Your task to perform on an android device: open app "McDonald's" Image 0: 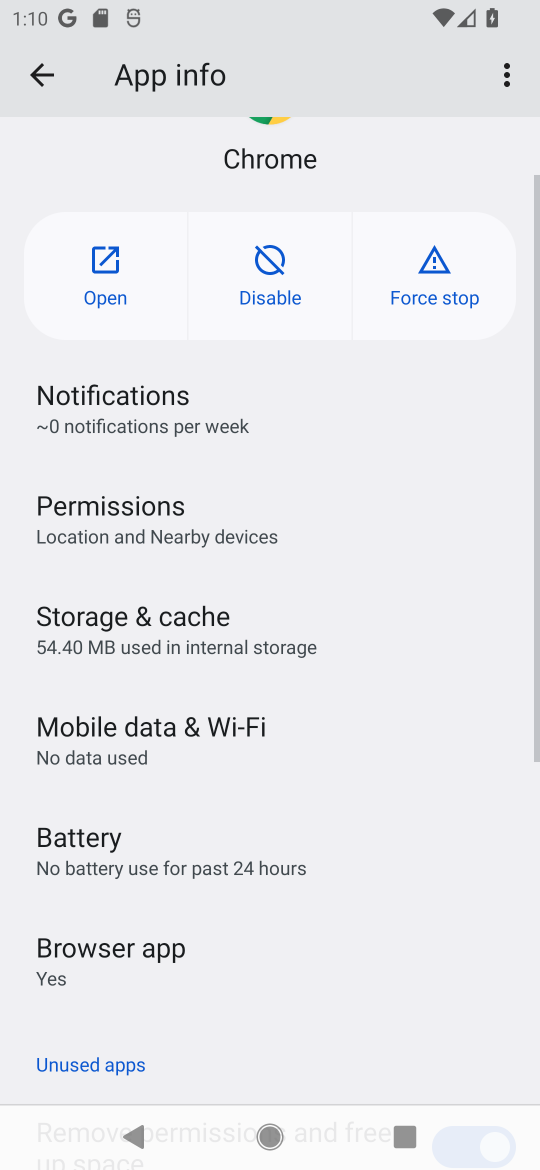
Step 0: press back button
Your task to perform on an android device: open app "McDonald's" Image 1: 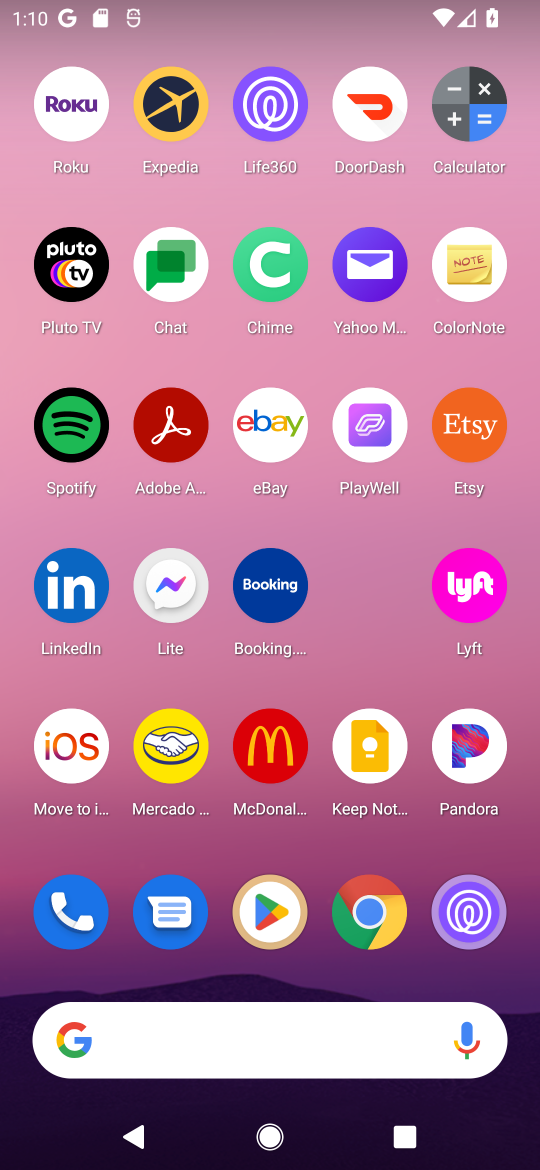
Step 1: click (277, 914)
Your task to perform on an android device: open app "McDonald's" Image 2: 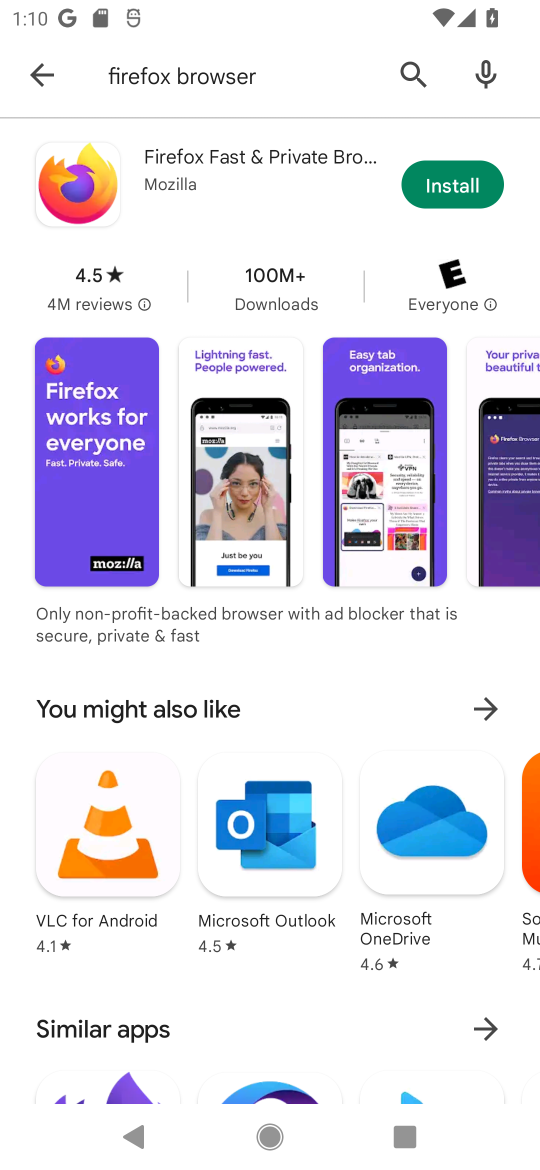
Step 2: click (405, 68)
Your task to perform on an android device: open app "McDonald's" Image 3: 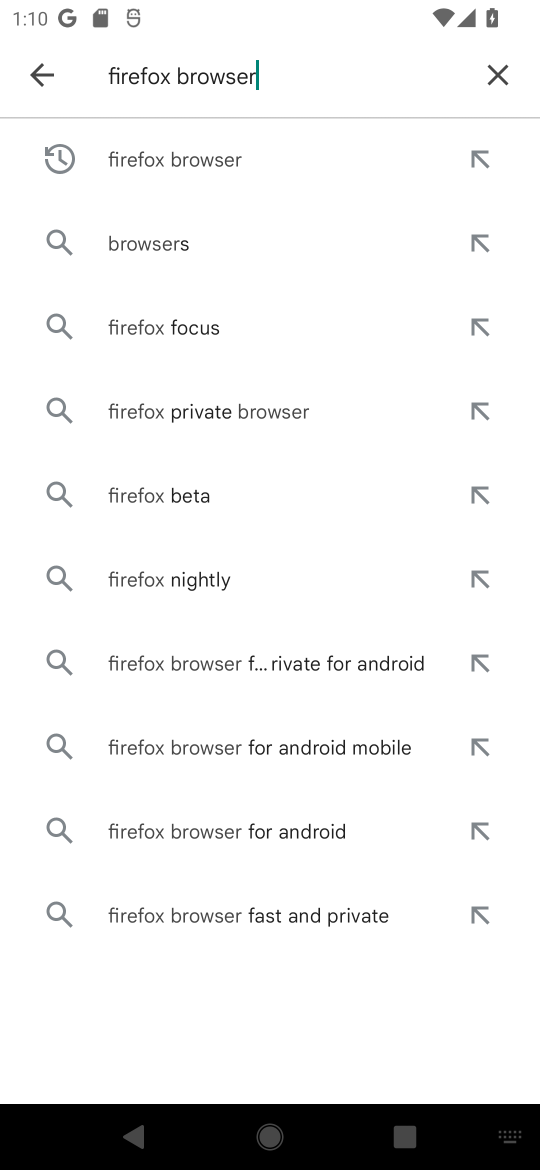
Step 3: click (509, 74)
Your task to perform on an android device: open app "McDonald's" Image 4: 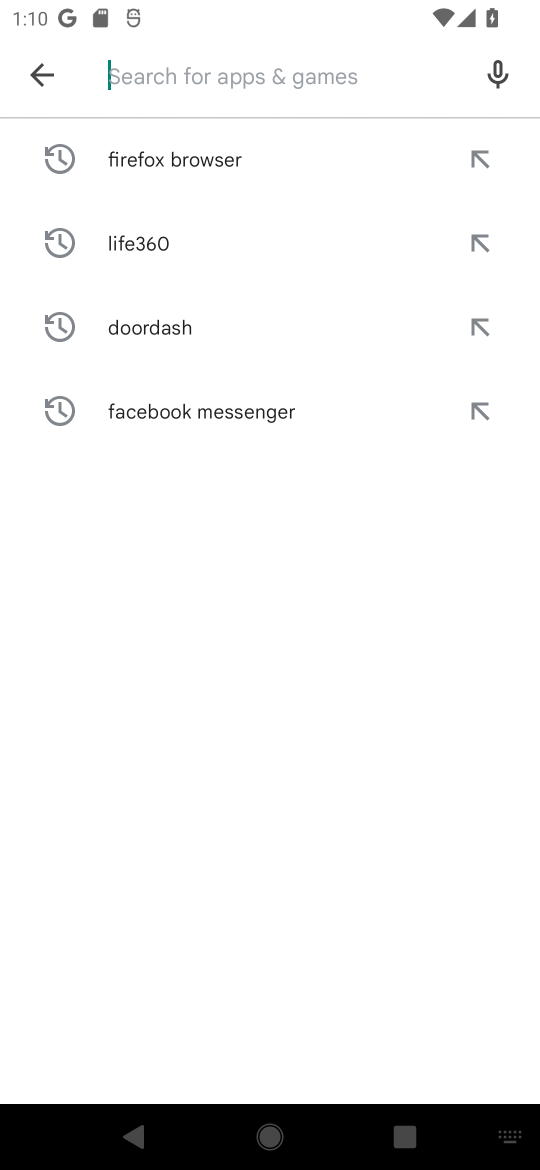
Step 4: click (133, 73)
Your task to perform on an android device: open app "McDonald's" Image 5: 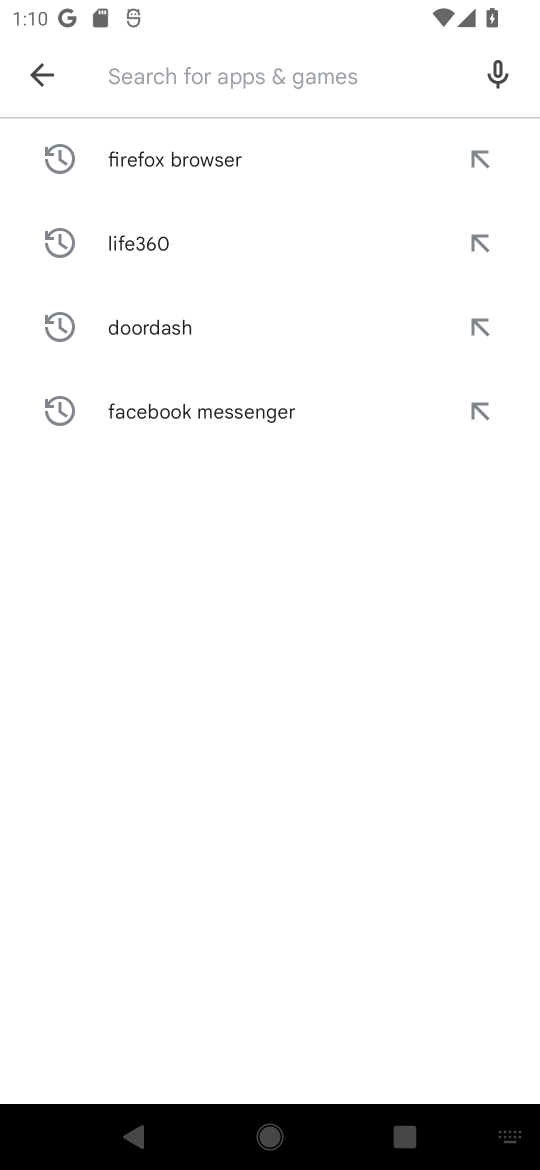
Step 5: type "McDonald's"
Your task to perform on an android device: open app "McDonald's" Image 6: 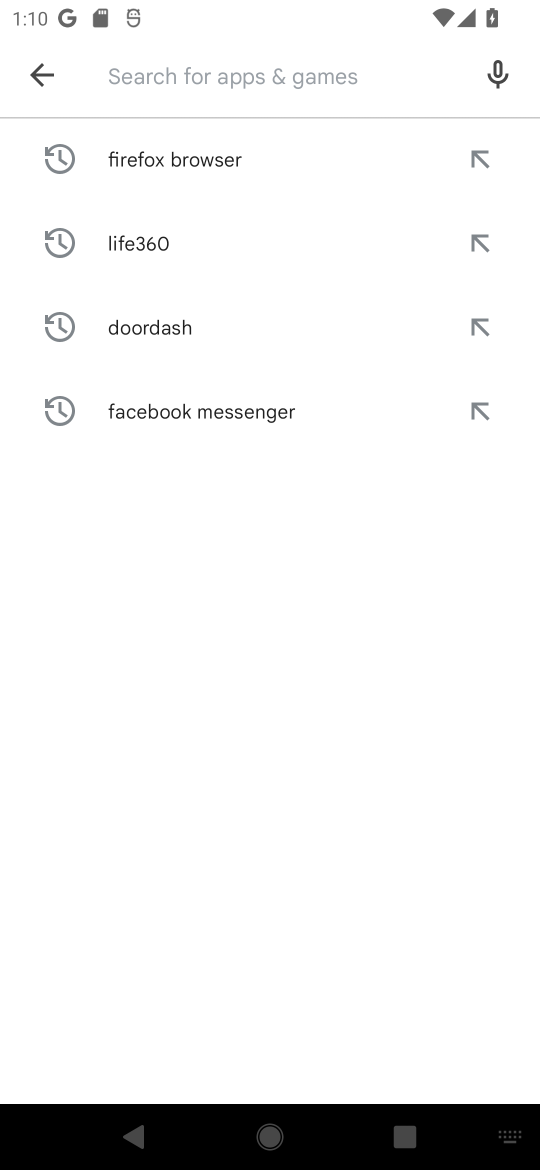
Step 6: click (214, 702)
Your task to perform on an android device: open app "McDonald's" Image 7: 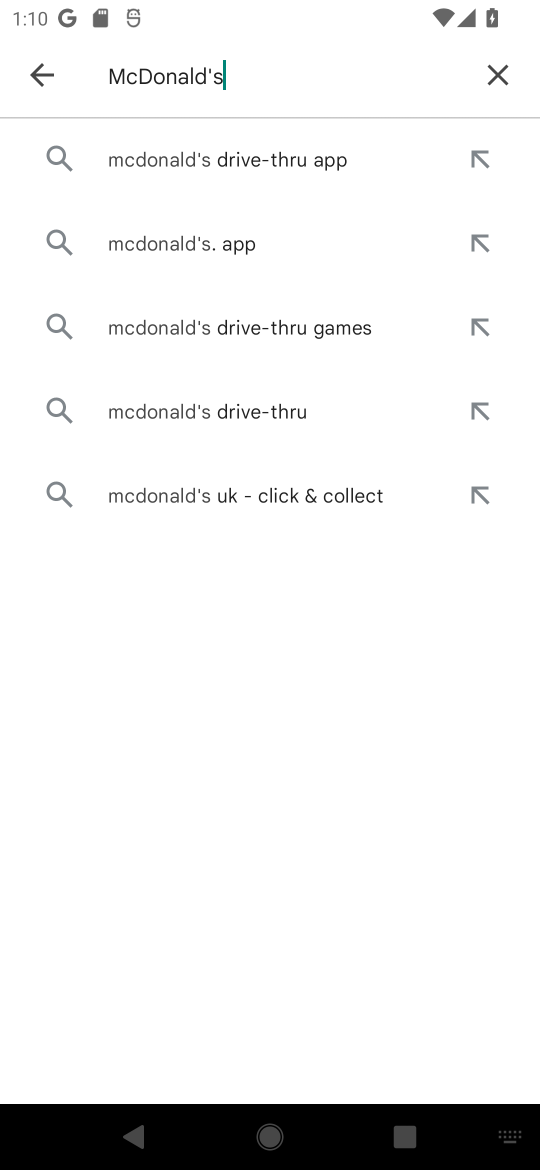
Step 7: click (191, 243)
Your task to perform on an android device: open app "McDonald's" Image 8: 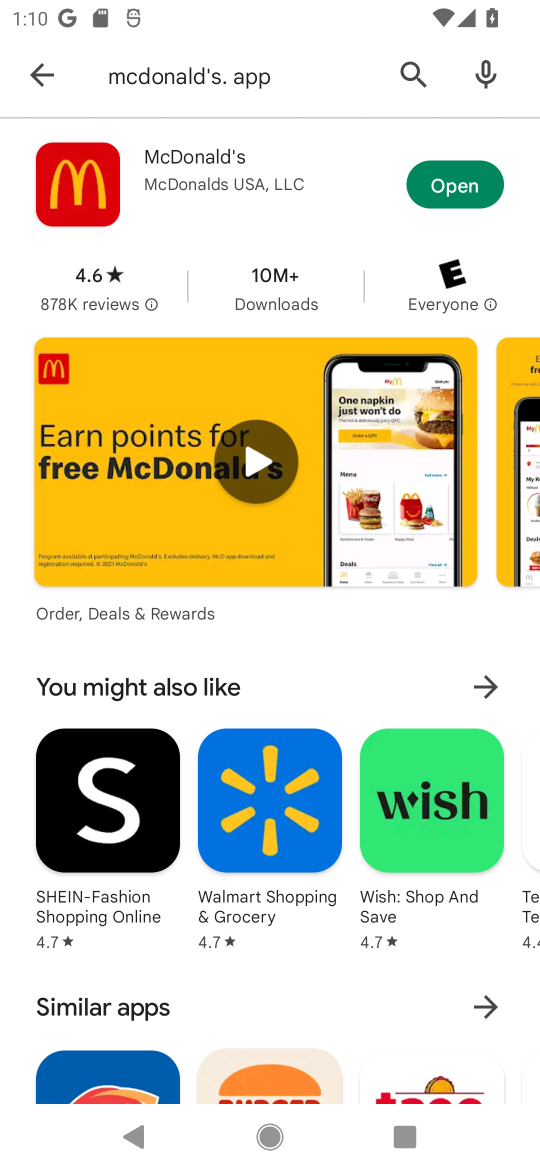
Step 8: click (432, 192)
Your task to perform on an android device: open app "McDonald's" Image 9: 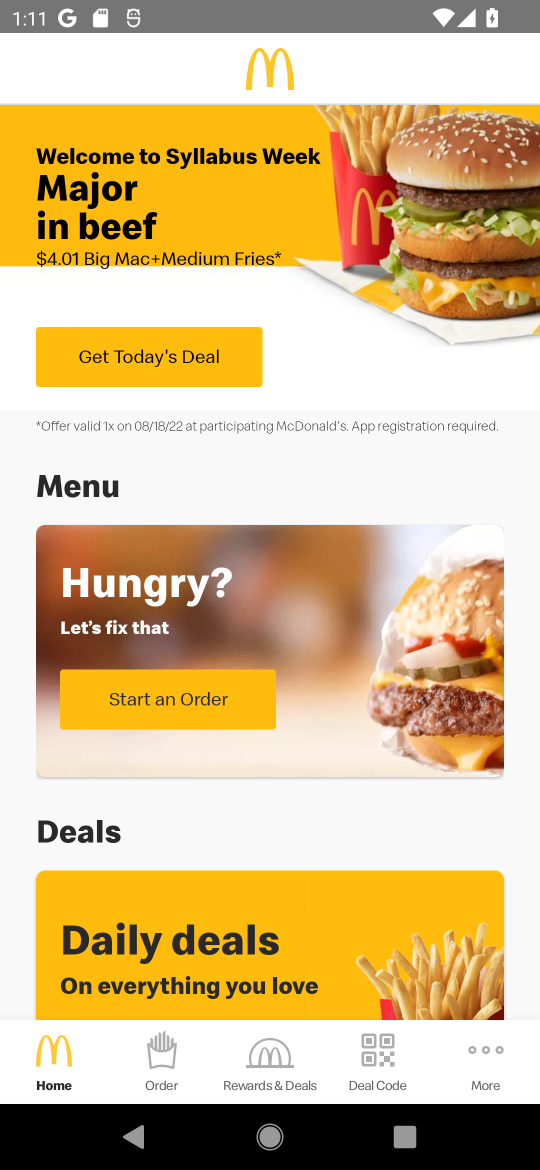
Step 9: task complete